Your task to perform on an android device: turn notification dots off Image 0: 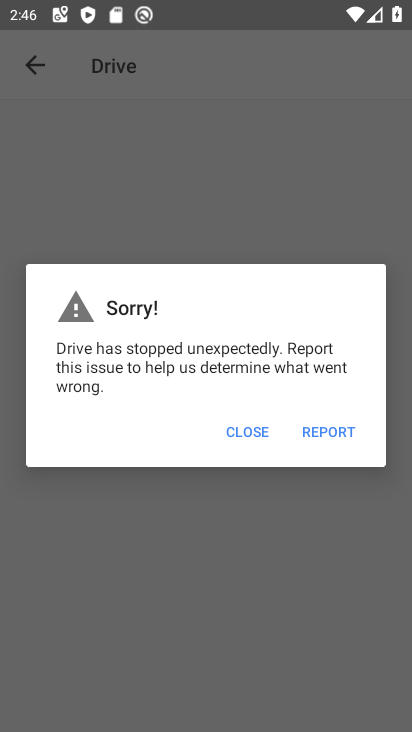
Step 0: press home button
Your task to perform on an android device: turn notification dots off Image 1: 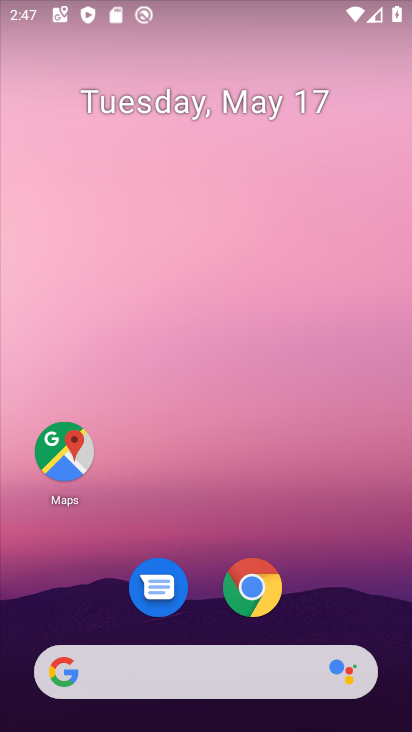
Step 1: drag from (344, 661) to (405, 47)
Your task to perform on an android device: turn notification dots off Image 2: 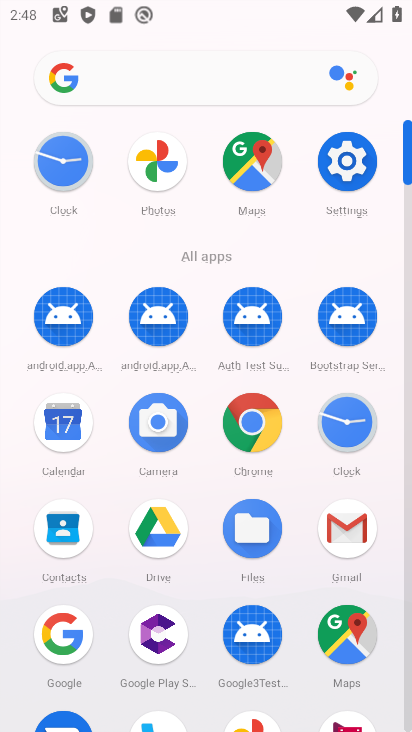
Step 2: click (359, 158)
Your task to perform on an android device: turn notification dots off Image 3: 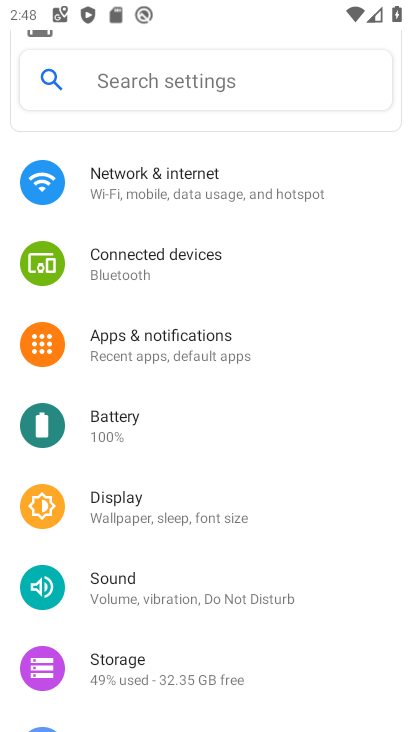
Step 3: click (227, 339)
Your task to perform on an android device: turn notification dots off Image 4: 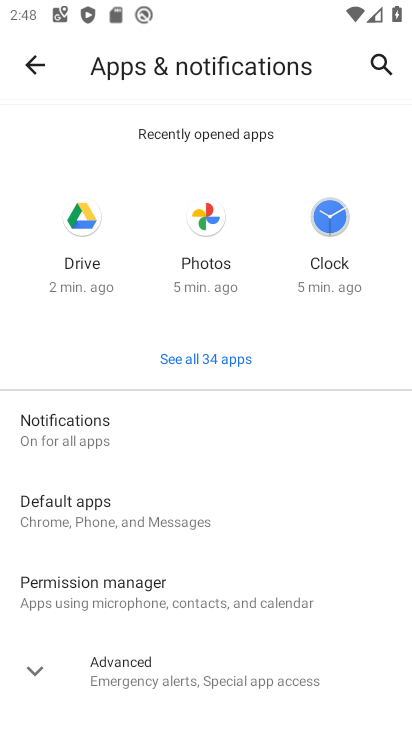
Step 4: drag from (323, 624) to (356, 49)
Your task to perform on an android device: turn notification dots off Image 5: 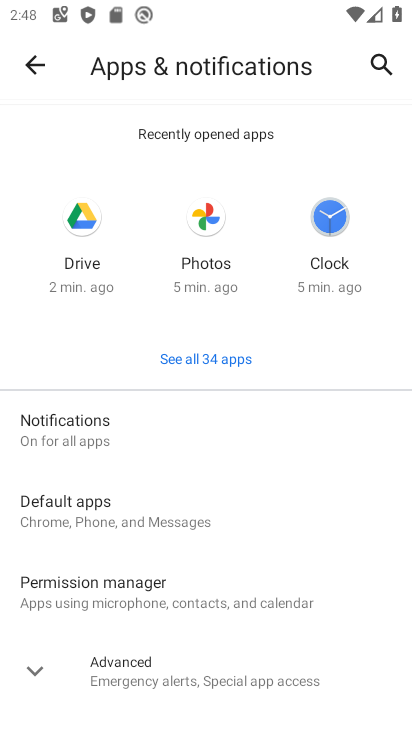
Step 5: click (231, 670)
Your task to perform on an android device: turn notification dots off Image 6: 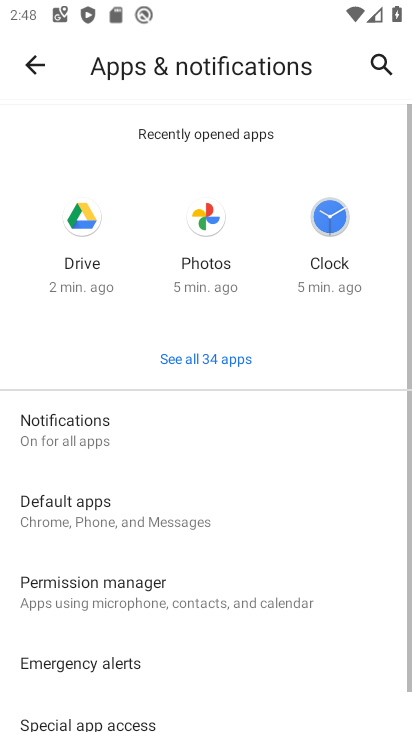
Step 6: drag from (191, 621) to (224, 29)
Your task to perform on an android device: turn notification dots off Image 7: 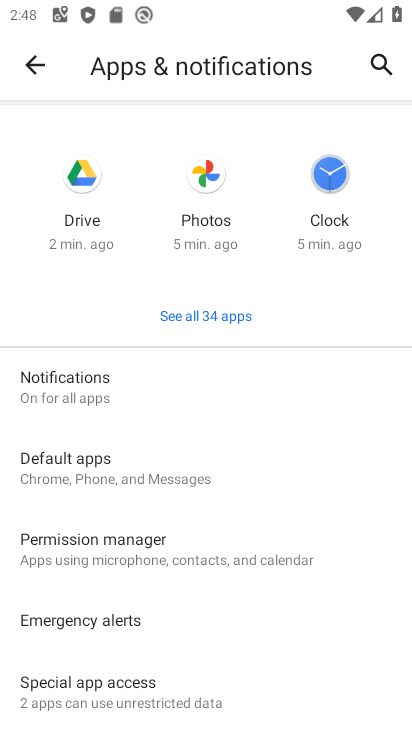
Step 7: click (142, 385)
Your task to perform on an android device: turn notification dots off Image 8: 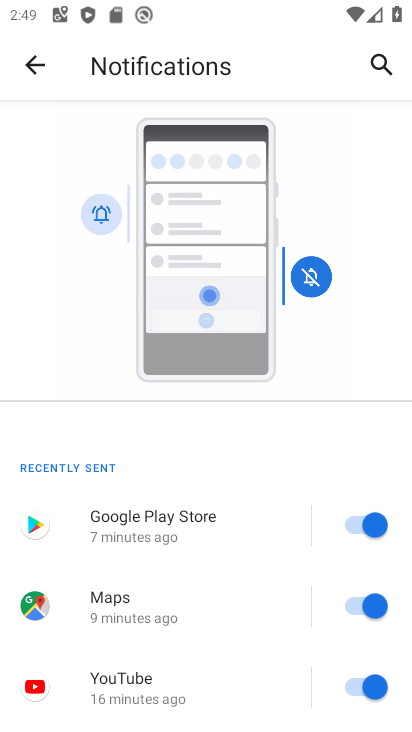
Step 8: drag from (246, 701) to (197, 123)
Your task to perform on an android device: turn notification dots off Image 9: 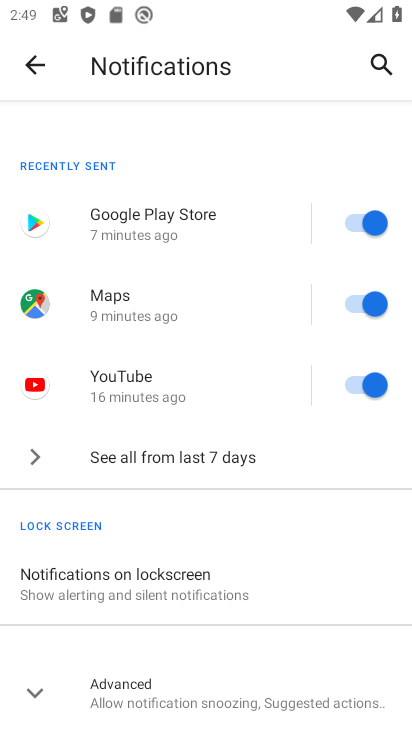
Step 9: click (213, 589)
Your task to perform on an android device: turn notification dots off Image 10: 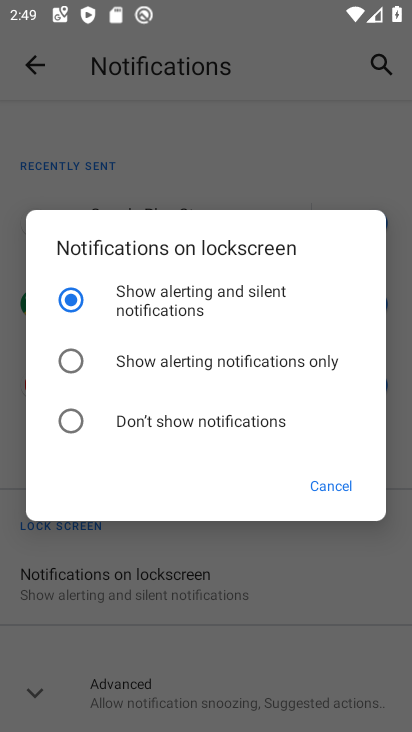
Step 10: click (334, 493)
Your task to perform on an android device: turn notification dots off Image 11: 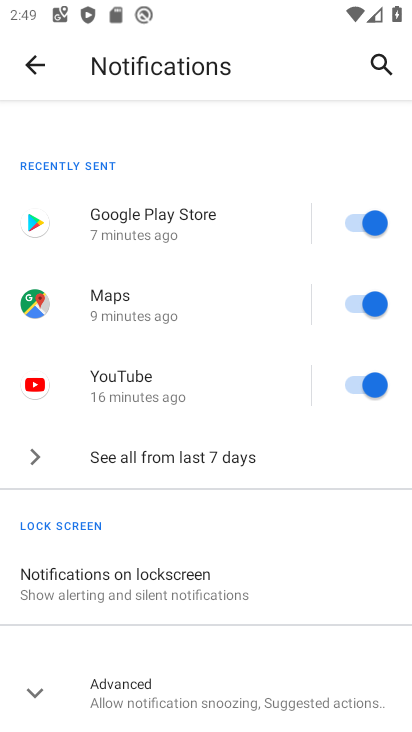
Step 11: click (210, 699)
Your task to perform on an android device: turn notification dots off Image 12: 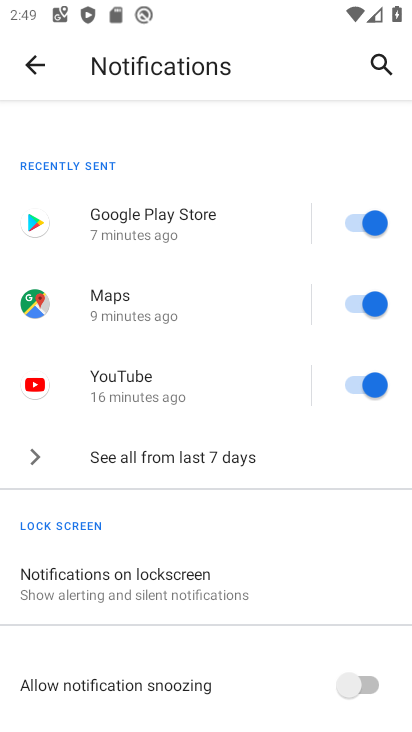
Step 12: drag from (240, 660) to (233, 173)
Your task to perform on an android device: turn notification dots off Image 13: 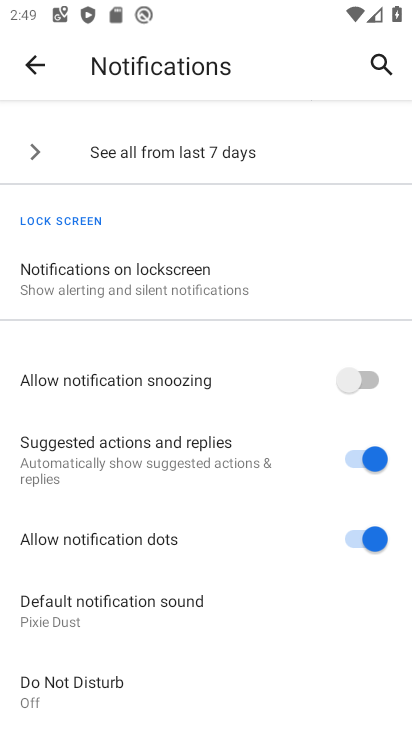
Step 13: click (372, 539)
Your task to perform on an android device: turn notification dots off Image 14: 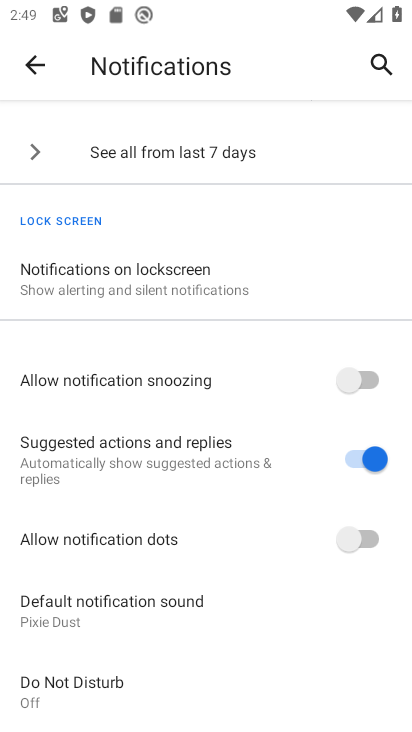
Step 14: task complete